Your task to perform on an android device: turn on translation in the chrome app Image 0: 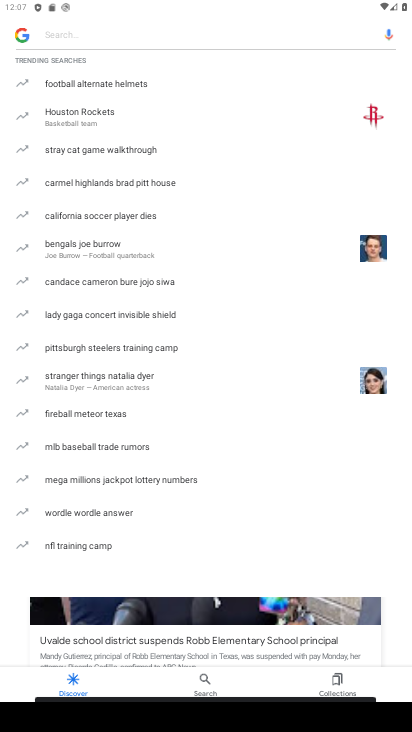
Step 0: press home button
Your task to perform on an android device: turn on translation in the chrome app Image 1: 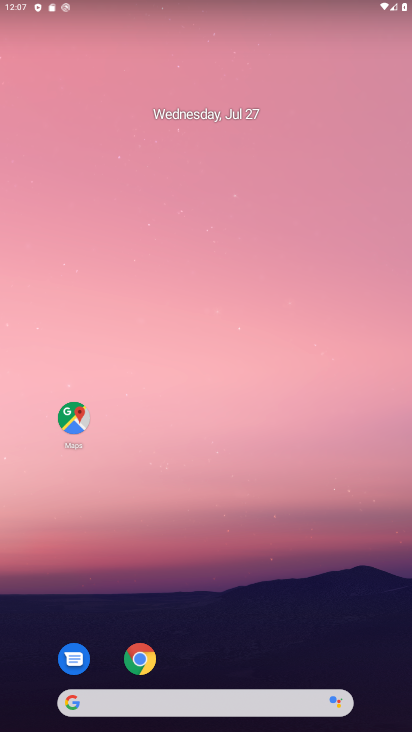
Step 1: drag from (312, 630) to (244, 49)
Your task to perform on an android device: turn on translation in the chrome app Image 2: 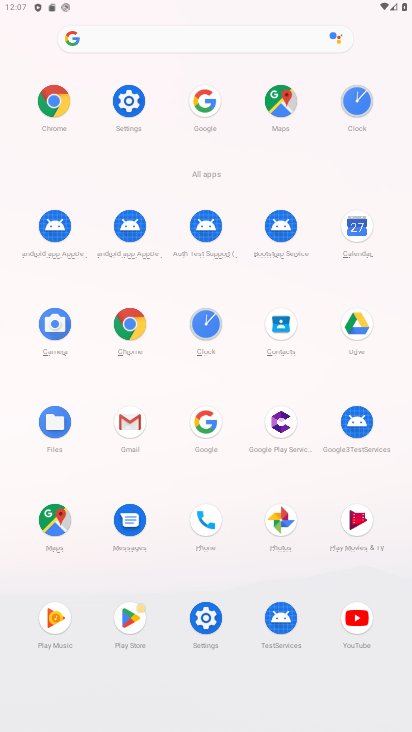
Step 2: click (64, 119)
Your task to perform on an android device: turn on translation in the chrome app Image 3: 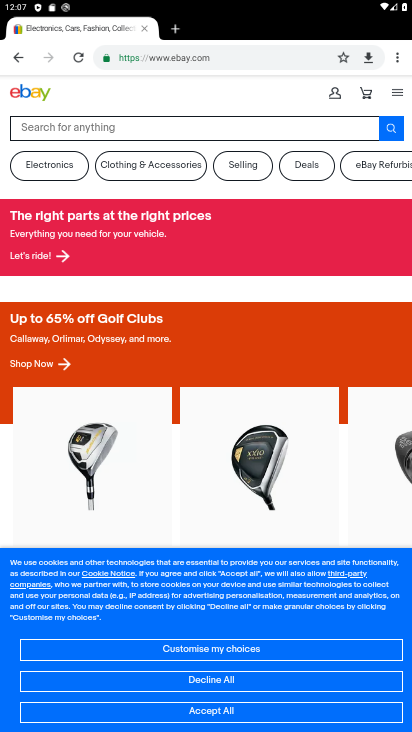
Step 3: drag from (392, 65) to (334, 368)
Your task to perform on an android device: turn on translation in the chrome app Image 4: 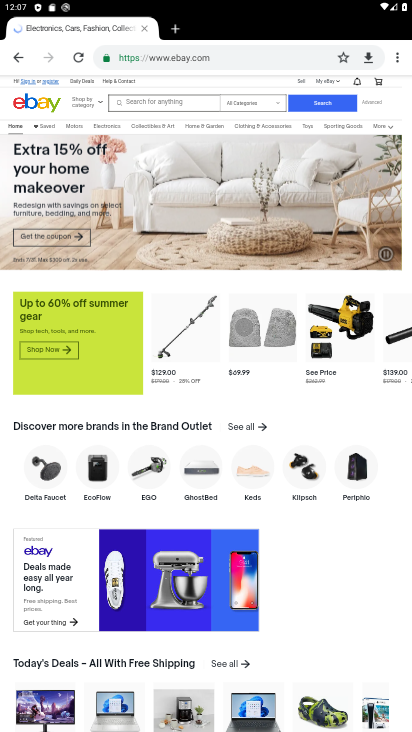
Step 4: click (20, 58)
Your task to perform on an android device: turn on translation in the chrome app Image 5: 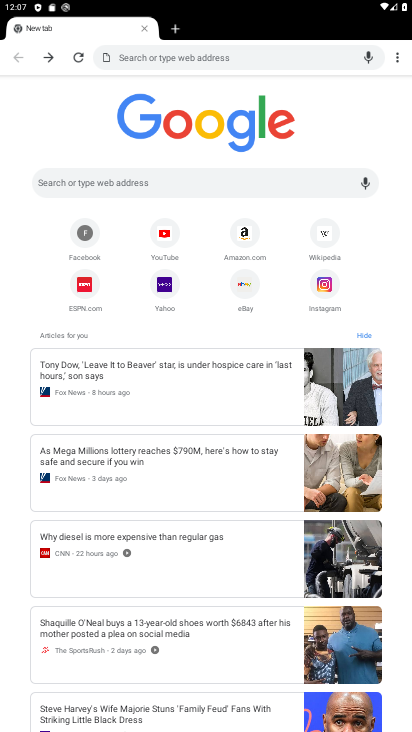
Step 5: drag from (390, 58) to (286, 253)
Your task to perform on an android device: turn on translation in the chrome app Image 6: 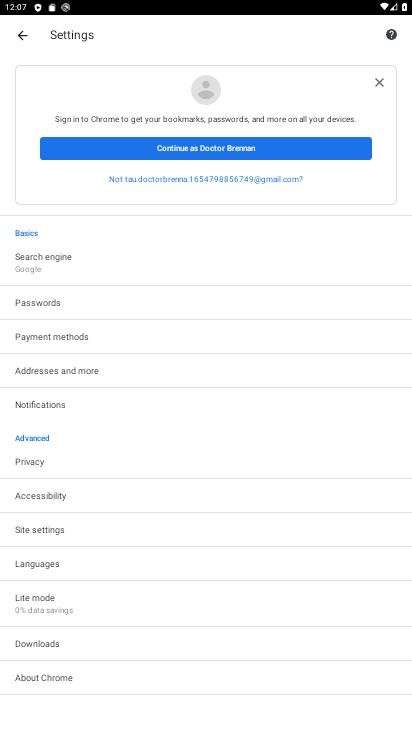
Step 6: drag from (243, 521) to (184, 269)
Your task to perform on an android device: turn on translation in the chrome app Image 7: 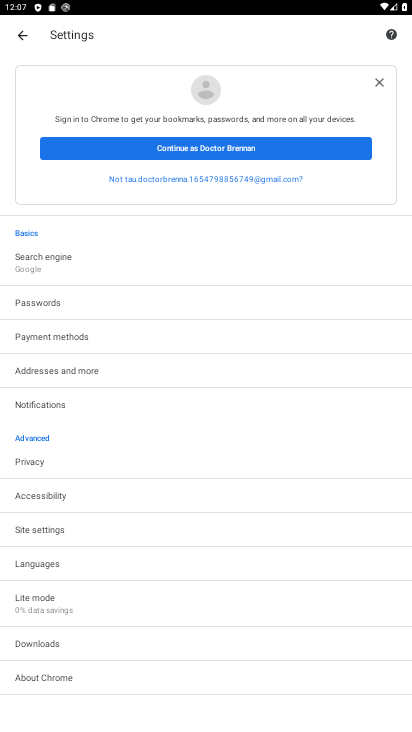
Step 7: click (57, 567)
Your task to perform on an android device: turn on translation in the chrome app Image 8: 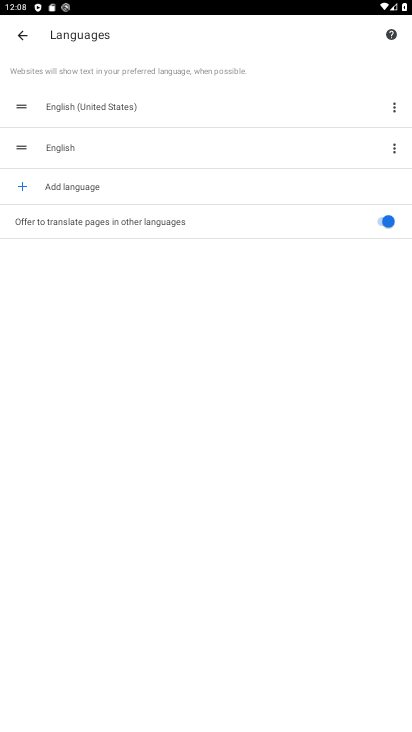
Step 8: task complete